Your task to perform on an android device: When is my next appointment? Image 0: 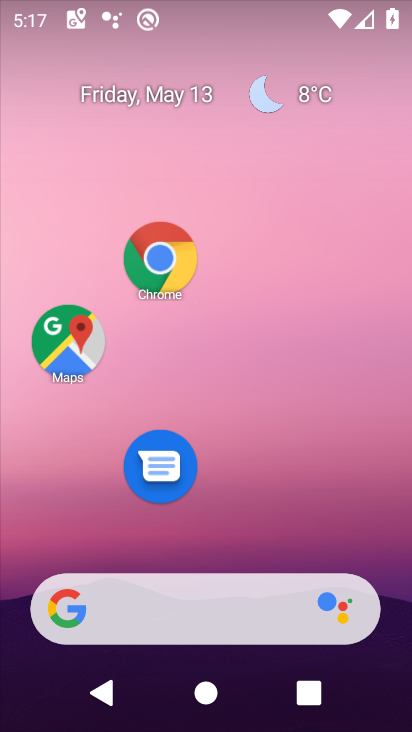
Step 0: drag from (254, 367) to (146, 69)
Your task to perform on an android device: When is my next appointment? Image 1: 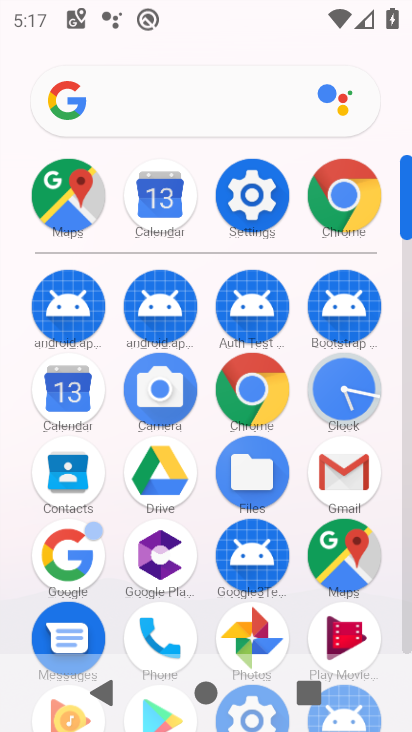
Step 1: click (74, 400)
Your task to perform on an android device: When is my next appointment? Image 2: 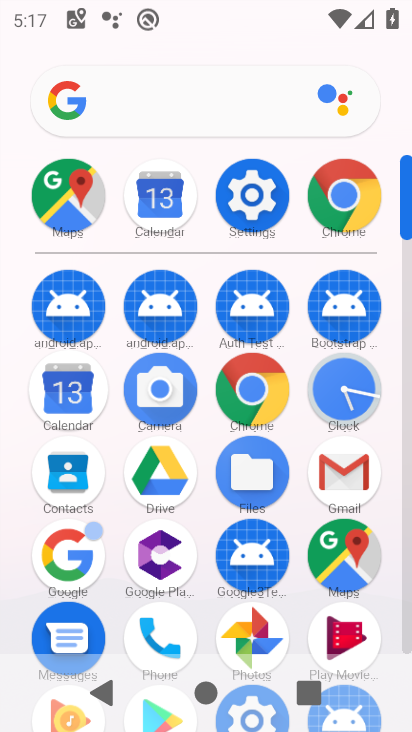
Step 2: click (73, 399)
Your task to perform on an android device: When is my next appointment? Image 3: 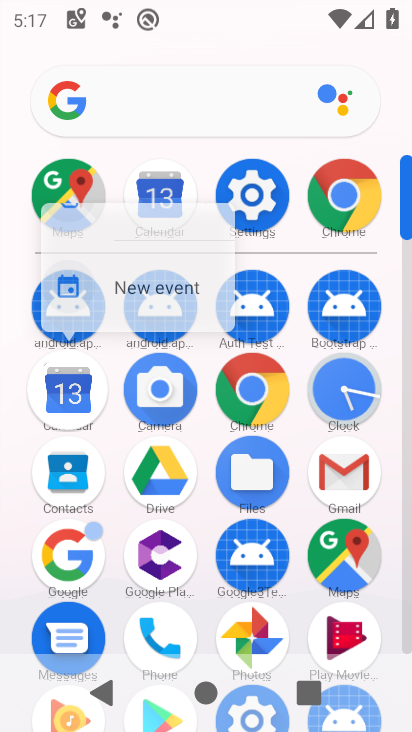
Step 3: click (73, 399)
Your task to perform on an android device: When is my next appointment? Image 4: 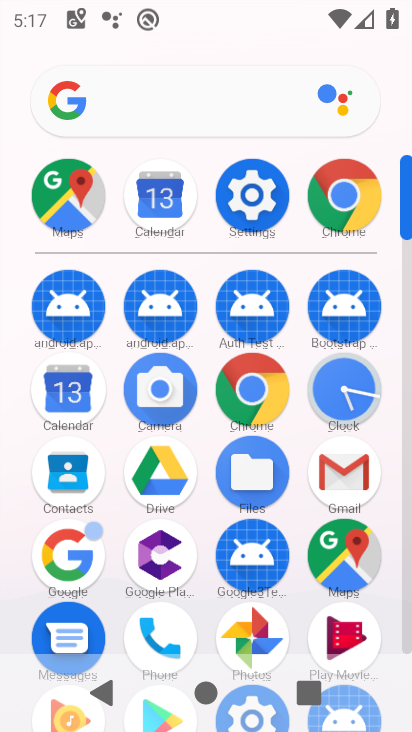
Step 4: click (73, 399)
Your task to perform on an android device: When is my next appointment? Image 5: 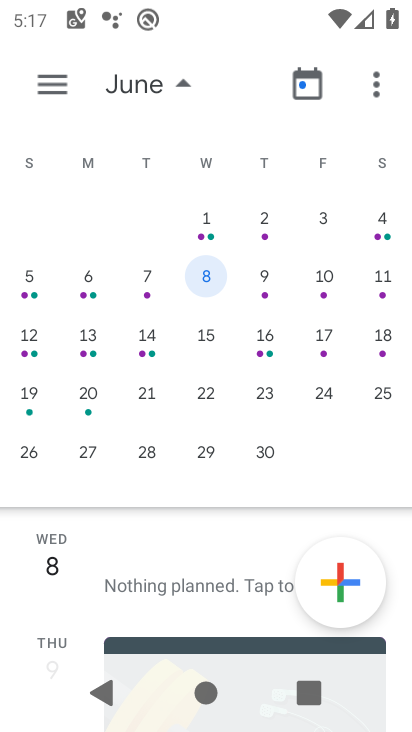
Step 5: click (73, 393)
Your task to perform on an android device: When is my next appointment? Image 6: 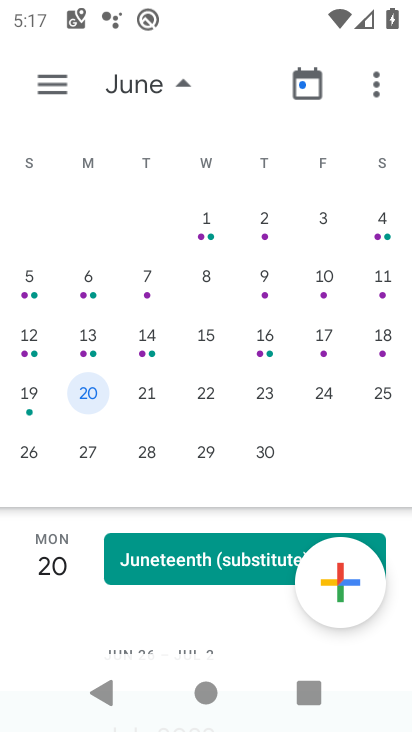
Step 6: click (238, 463)
Your task to perform on an android device: When is my next appointment? Image 7: 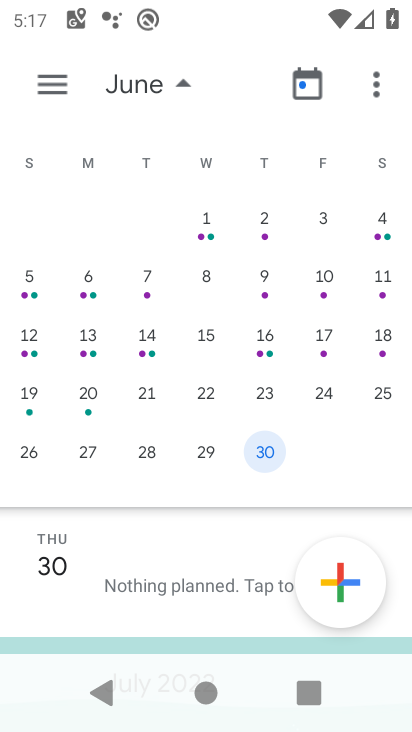
Step 7: drag from (146, 335) to (377, 364)
Your task to perform on an android device: When is my next appointment? Image 8: 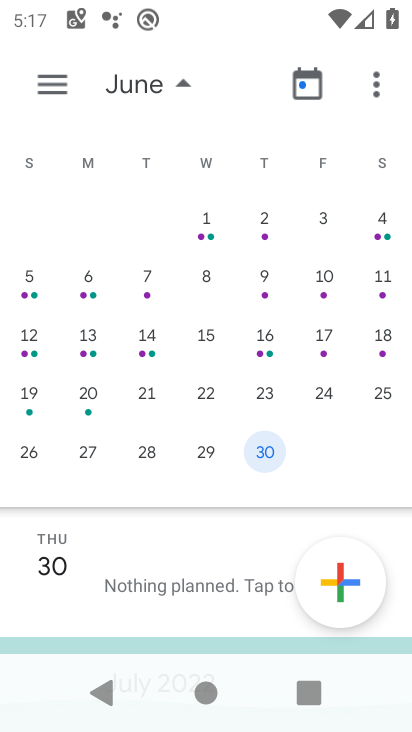
Step 8: drag from (126, 328) to (408, 361)
Your task to perform on an android device: When is my next appointment? Image 9: 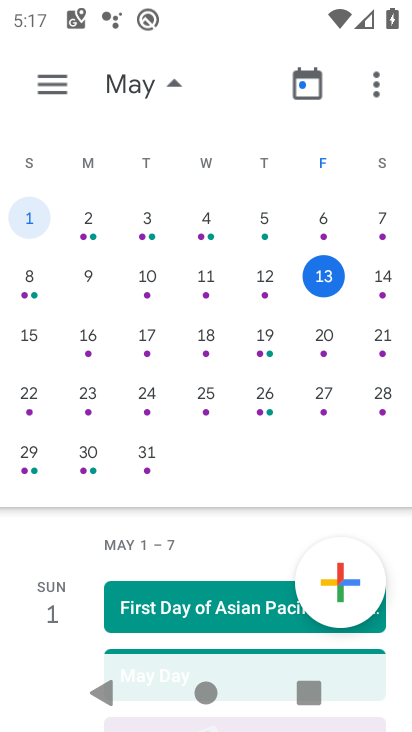
Step 9: drag from (131, 336) to (400, 331)
Your task to perform on an android device: When is my next appointment? Image 10: 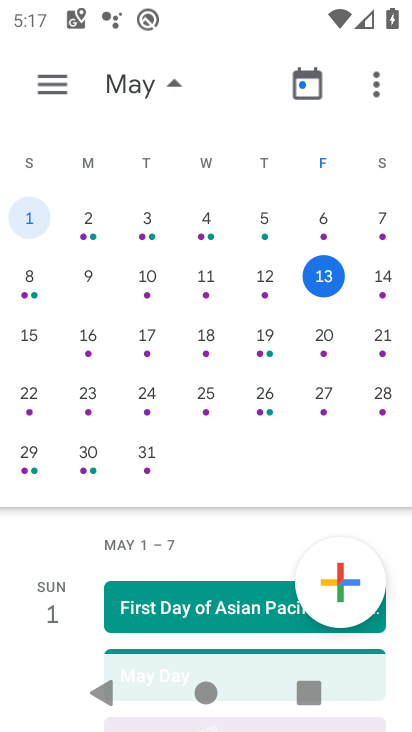
Step 10: drag from (142, 318) to (388, 334)
Your task to perform on an android device: When is my next appointment? Image 11: 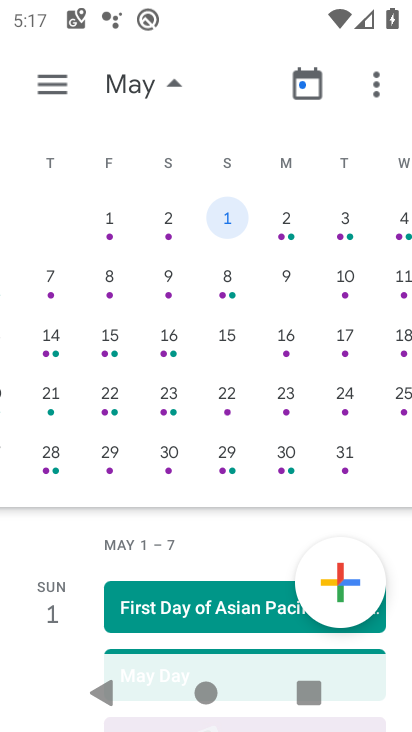
Step 11: drag from (172, 301) to (406, 336)
Your task to perform on an android device: When is my next appointment? Image 12: 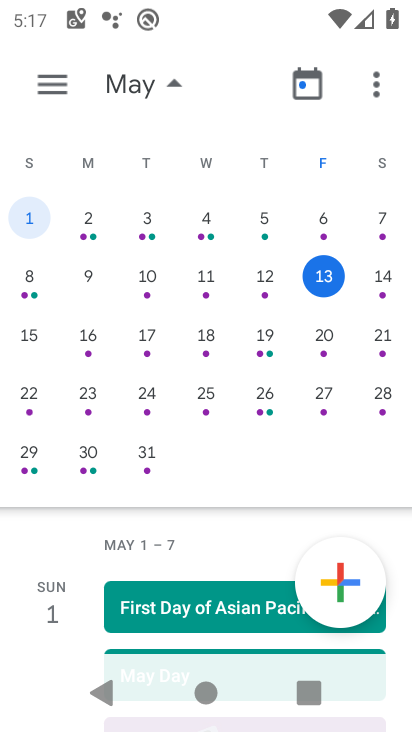
Step 12: drag from (111, 310) to (349, 348)
Your task to perform on an android device: When is my next appointment? Image 13: 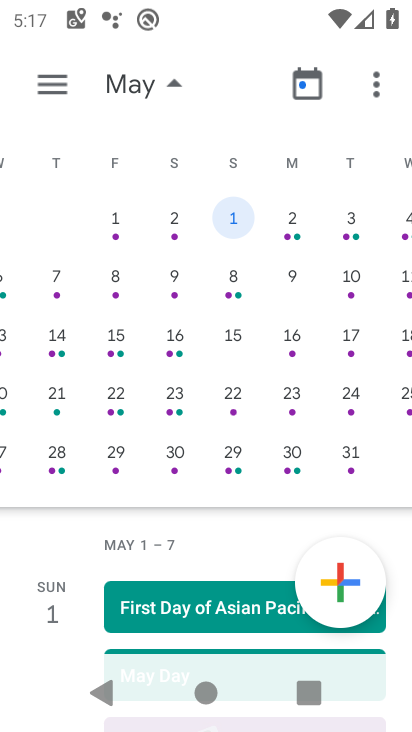
Step 13: drag from (142, 333) to (384, 339)
Your task to perform on an android device: When is my next appointment? Image 14: 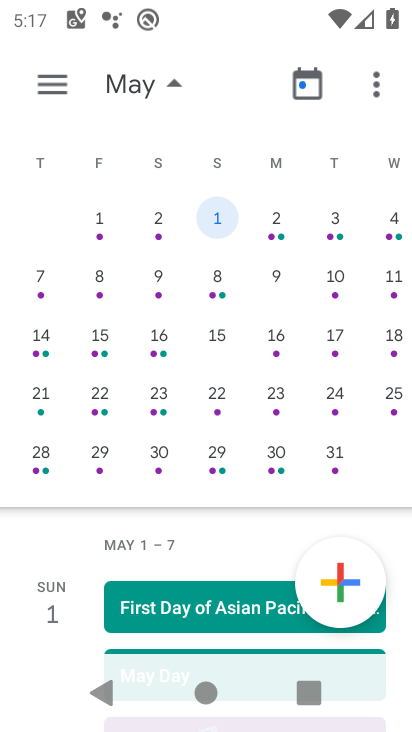
Step 14: drag from (176, 332) to (376, 337)
Your task to perform on an android device: When is my next appointment? Image 15: 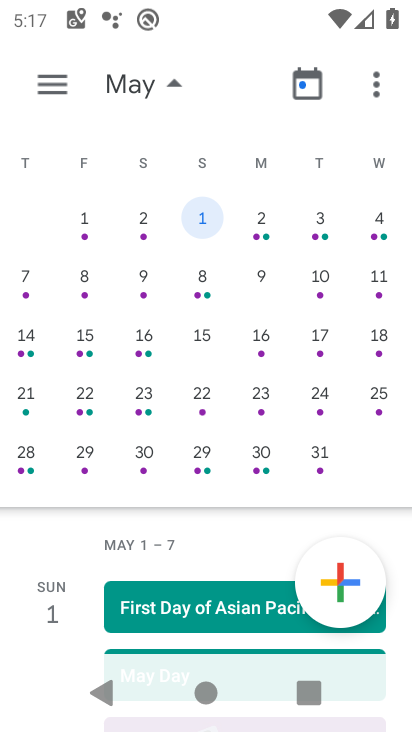
Step 15: drag from (261, 332) to (383, 312)
Your task to perform on an android device: When is my next appointment? Image 16: 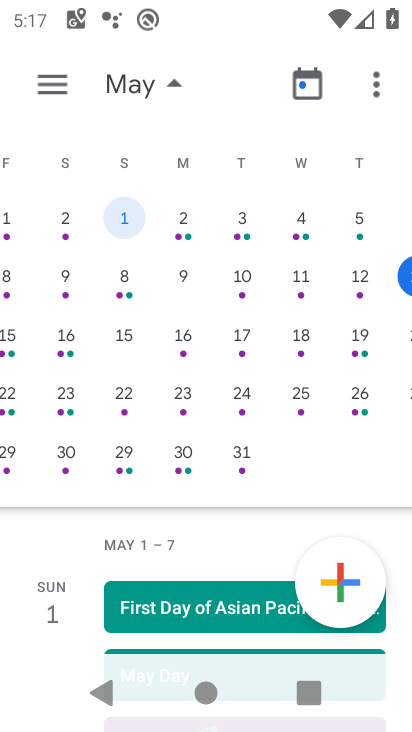
Step 16: drag from (96, 288) to (385, 308)
Your task to perform on an android device: When is my next appointment? Image 17: 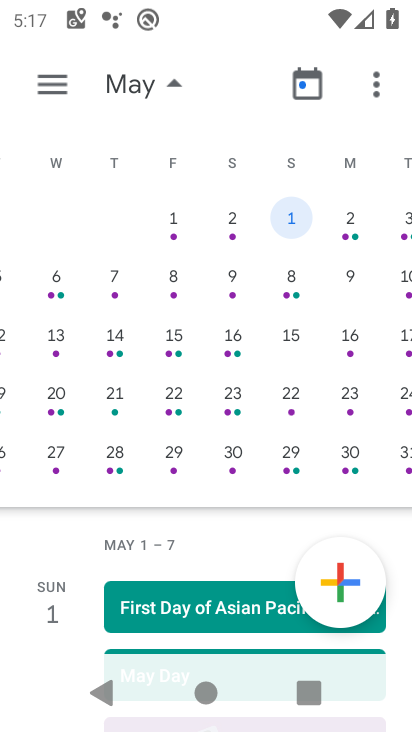
Step 17: drag from (81, 309) to (394, 340)
Your task to perform on an android device: When is my next appointment? Image 18: 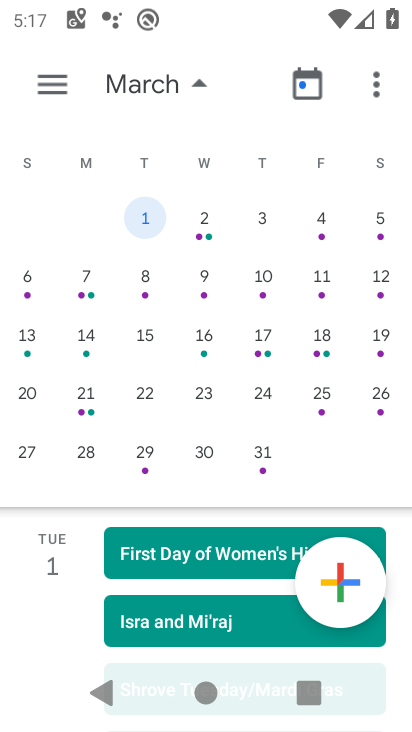
Step 18: drag from (285, 336) to (318, 322)
Your task to perform on an android device: When is my next appointment? Image 19: 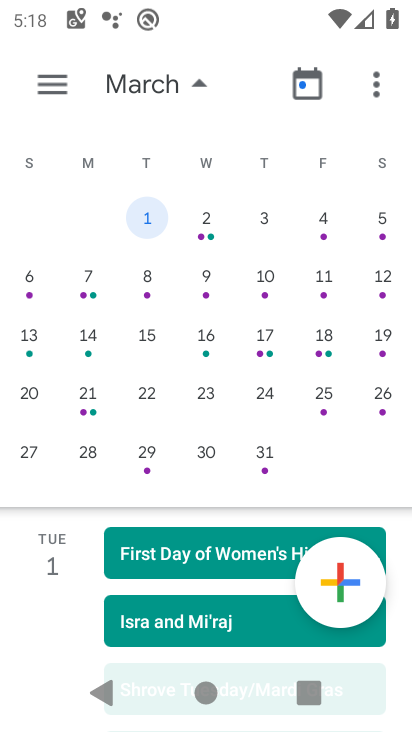
Step 19: drag from (81, 268) to (356, 268)
Your task to perform on an android device: When is my next appointment? Image 20: 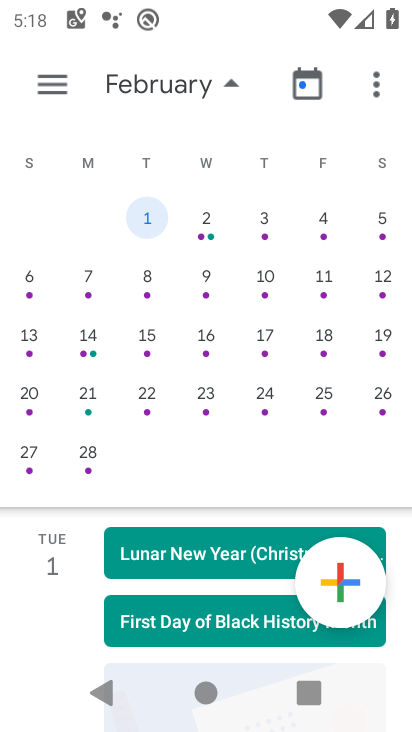
Step 20: drag from (160, 522) to (235, 164)
Your task to perform on an android device: When is my next appointment? Image 21: 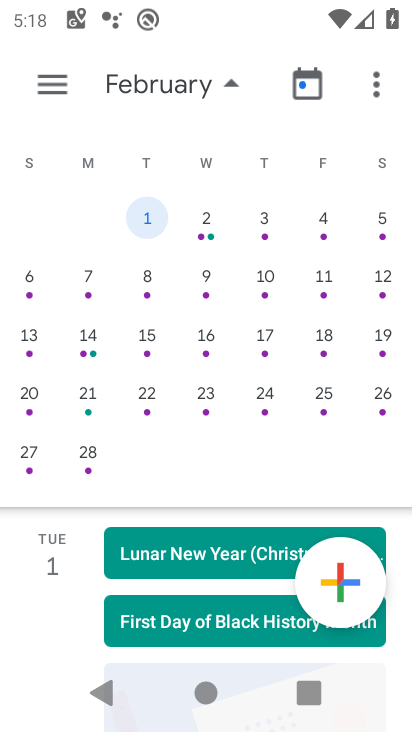
Step 21: drag from (259, 547) to (260, 300)
Your task to perform on an android device: When is my next appointment? Image 22: 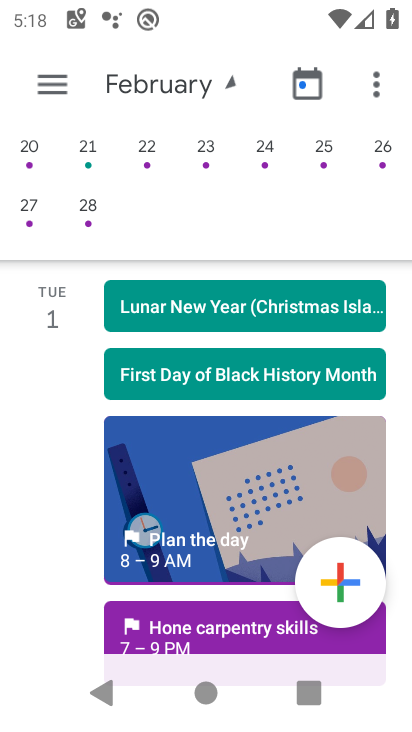
Step 22: drag from (321, 325) to (109, 354)
Your task to perform on an android device: When is my next appointment? Image 23: 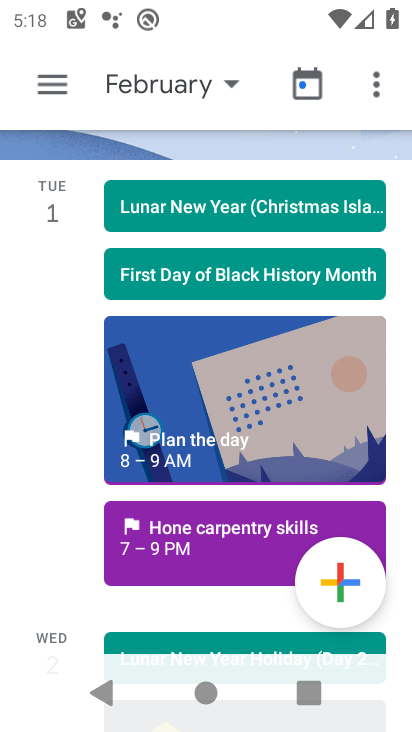
Step 23: drag from (280, 234) to (329, 610)
Your task to perform on an android device: When is my next appointment? Image 24: 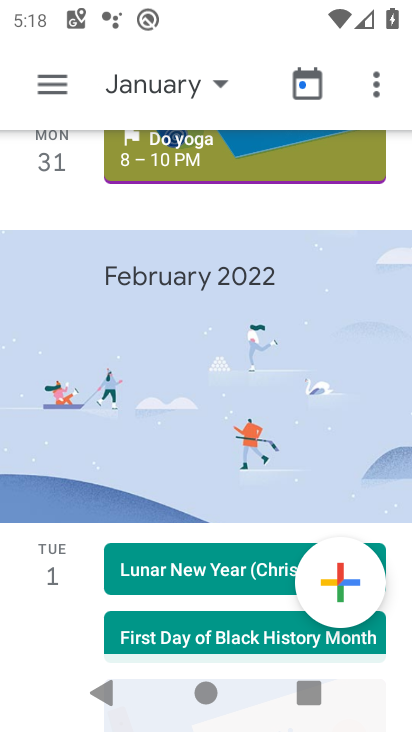
Step 24: click (210, 81)
Your task to perform on an android device: When is my next appointment? Image 25: 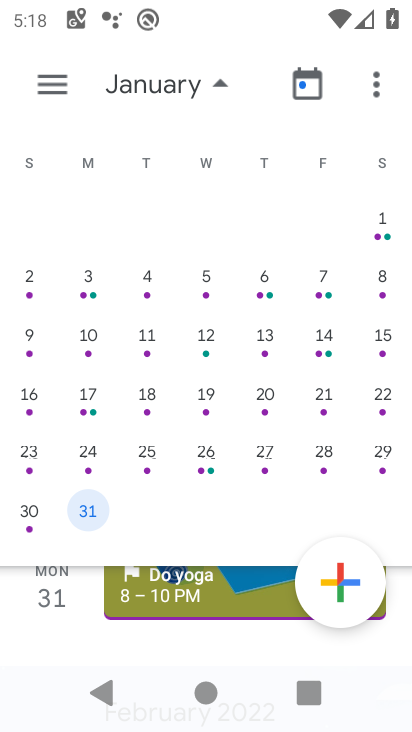
Step 25: task complete